Your task to perform on an android device: What's the weather? Image 0: 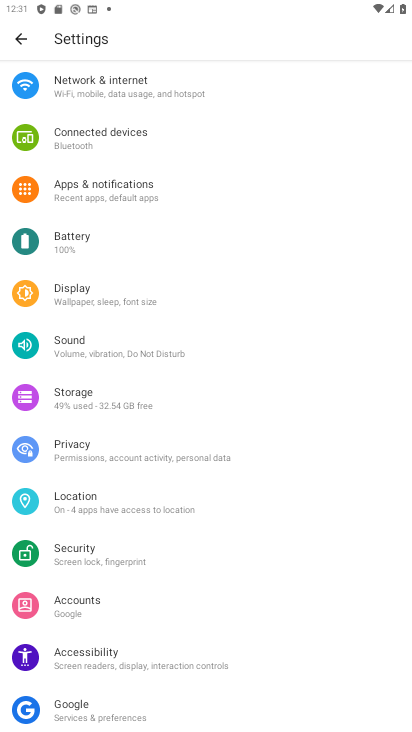
Step 0: press home button
Your task to perform on an android device: What's the weather? Image 1: 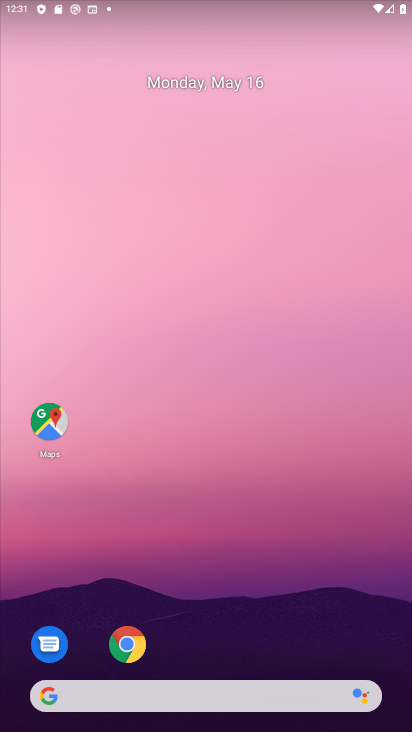
Step 1: drag from (49, 266) to (408, 202)
Your task to perform on an android device: What's the weather? Image 2: 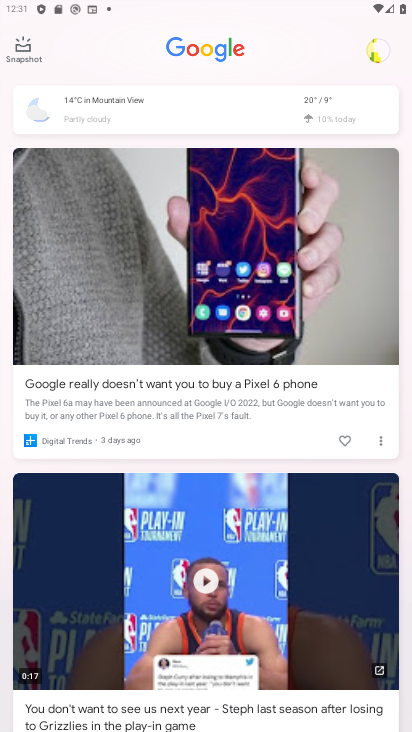
Step 2: click (72, 116)
Your task to perform on an android device: What's the weather? Image 3: 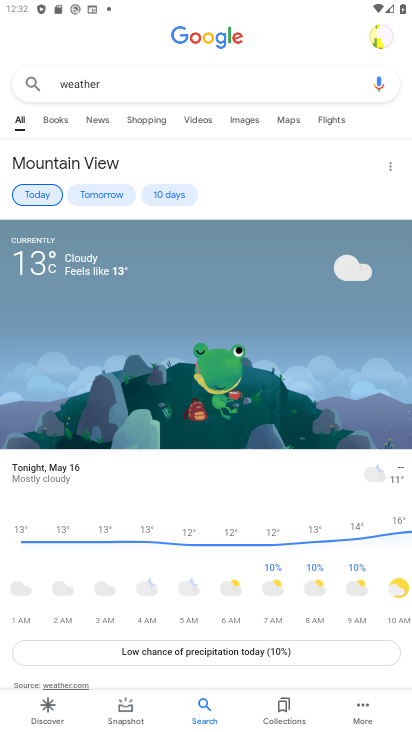
Step 3: task complete